Your task to perform on an android device: Open the calendar app, open the side menu, and click the "Day" option Image 0: 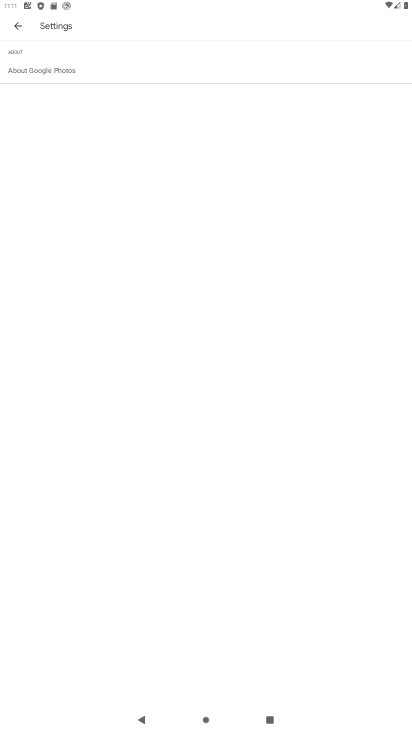
Step 0: press home button
Your task to perform on an android device: Open the calendar app, open the side menu, and click the "Day" option Image 1: 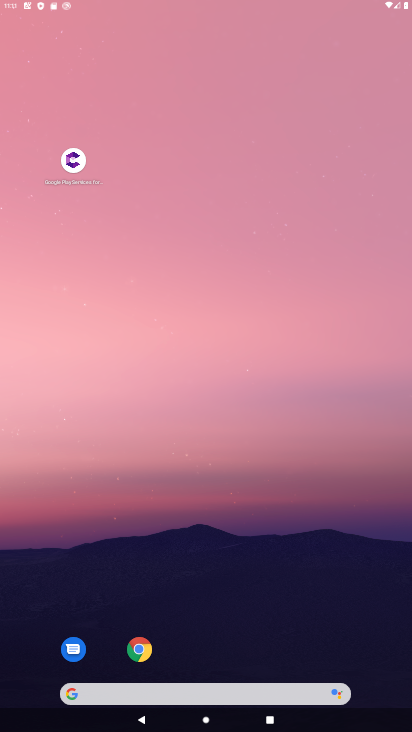
Step 1: drag from (232, 563) to (290, 169)
Your task to perform on an android device: Open the calendar app, open the side menu, and click the "Day" option Image 2: 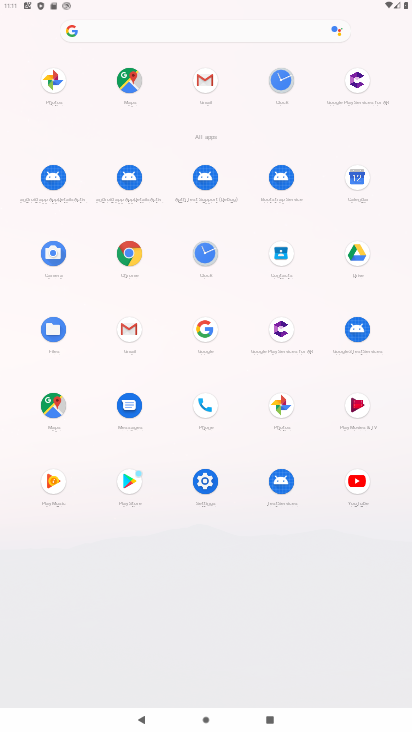
Step 2: click (359, 201)
Your task to perform on an android device: Open the calendar app, open the side menu, and click the "Day" option Image 3: 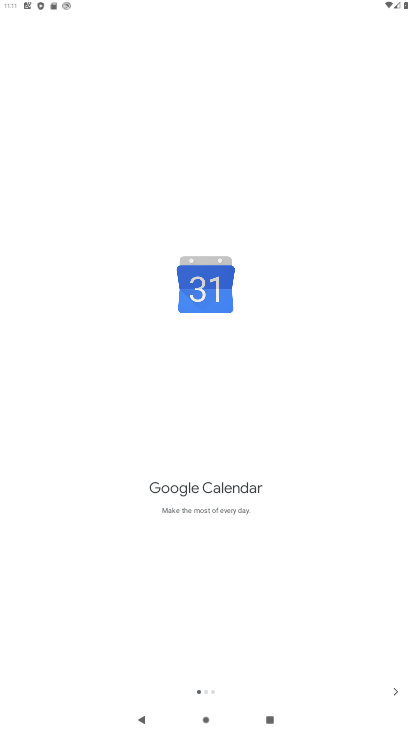
Step 3: click (379, 695)
Your task to perform on an android device: Open the calendar app, open the side menu, and click the "Day" option Image 4: 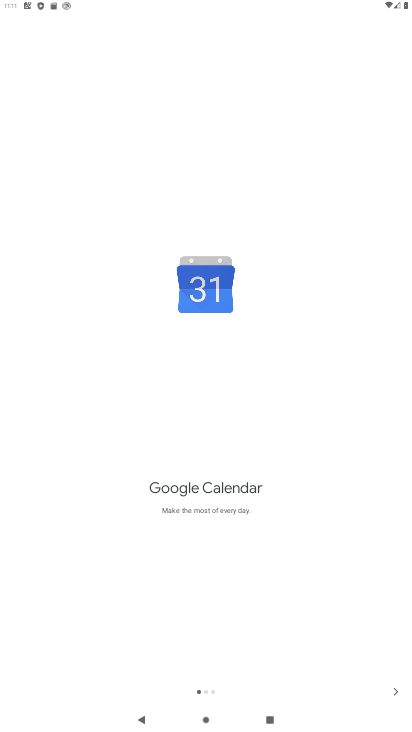
Step 4: click (379, 688)
Your task to perform on an android device: Open the calendar app, open the side menu, and click the "Day" option Image 5: 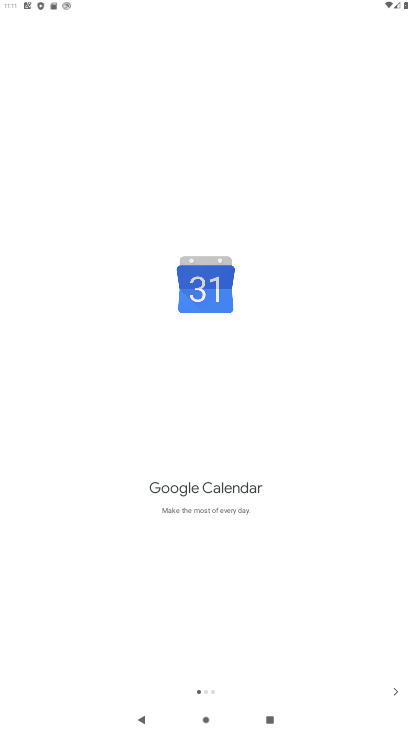
Step 5: click (379, 688)
Your task to perform on an android device: Open the calendar app, open the side menu, and click the "Day" option Image 6: 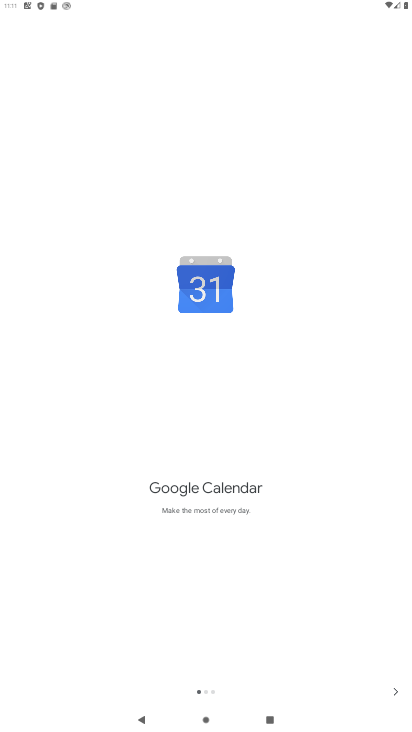
Step 6: click (379, 688)
Your task to perform on an android device: Open the calendar app, open the side menu, and click the "Day" option Image 7: 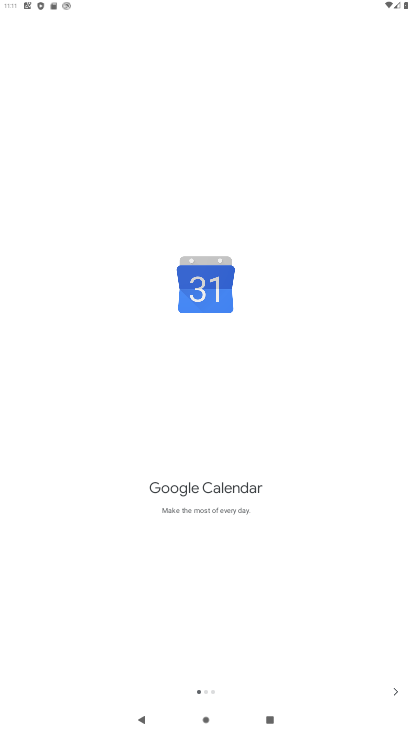
Step 7: click (387, 687)
Your task to perform on an android device: Open the calendar app, open the side menu, and click the "Day" option Image 8: 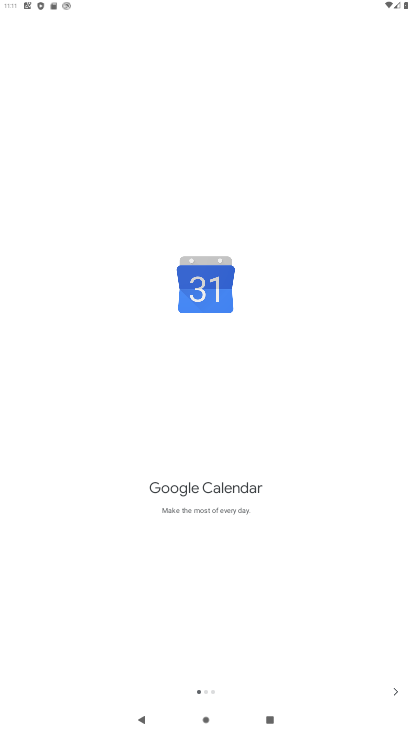
Step 8: click (387, 687)
Your task to perform on an android device: Open the calendar app, open the side menu, and click the "Day" option Image 9: 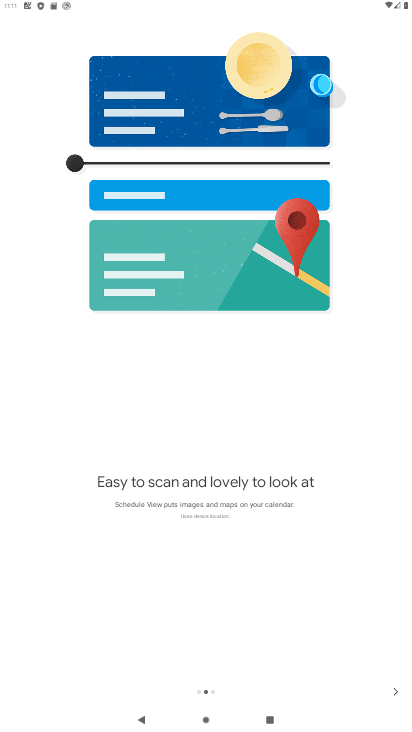
Step 9: click (393, 692)
Your task to perform on an android device: Open the calendar app, open the side menu, and click the "Day" option Image 10: 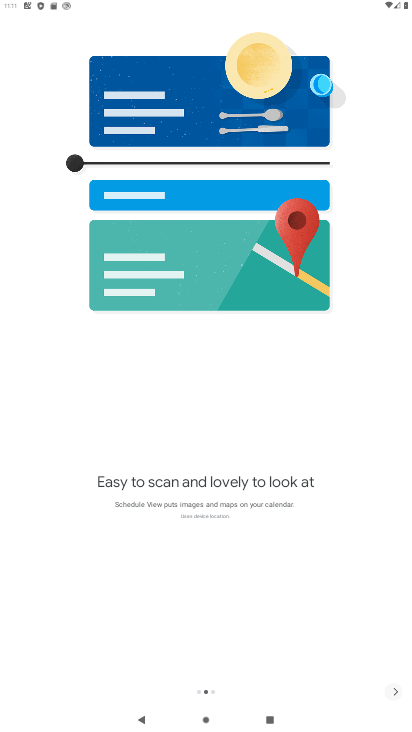
Step 10: click (393, 692)
Your task to perform on an android device: Open the calendar app, open the side menu, and click the "Day" option Image 11: 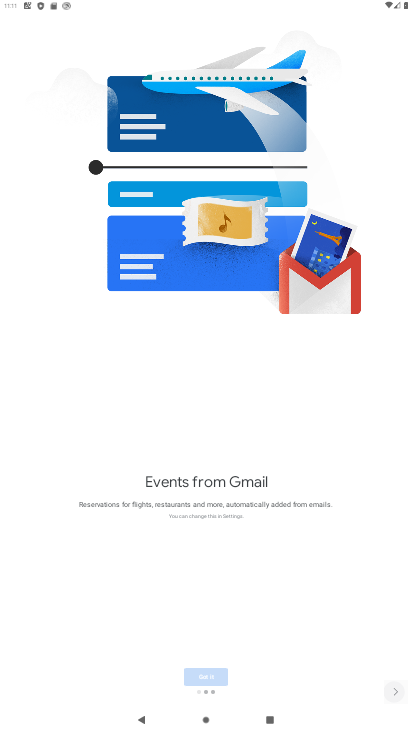
Step 11: click (393, 692)
Your task to perform on an android device: Open the calendar app, open the side menu, and click the "Day" option Image 12: 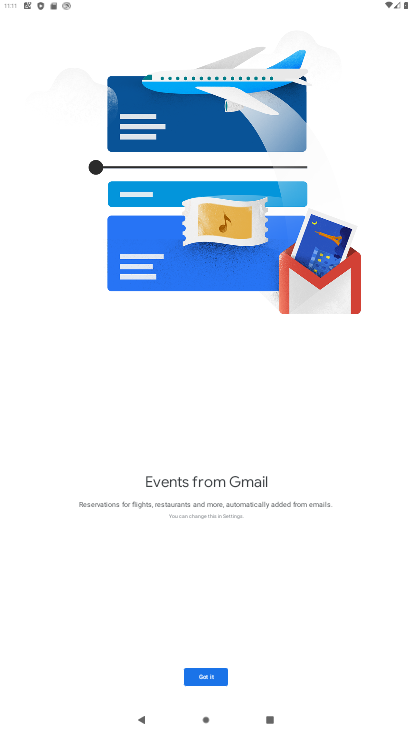
Step 12: click (393, 692)
Your task to perform on an android device: Open the calendar app, open the side menu, and click the "Day" option Image 13: 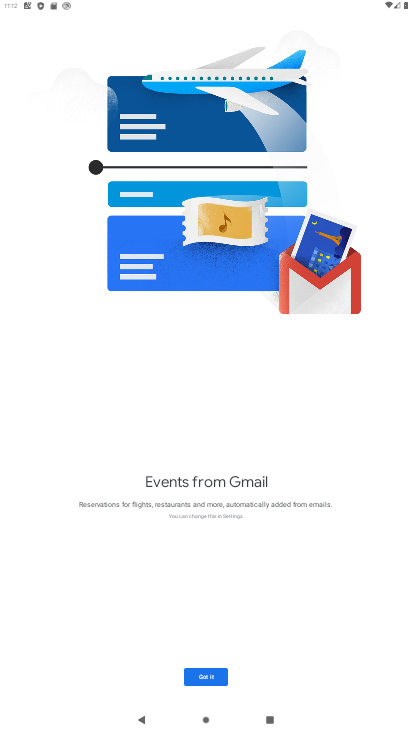
Step 13: click (204, 679)
Your task to perform on an android device: Open the calendar app, open the side menu, and click the "Day" option Image 14: 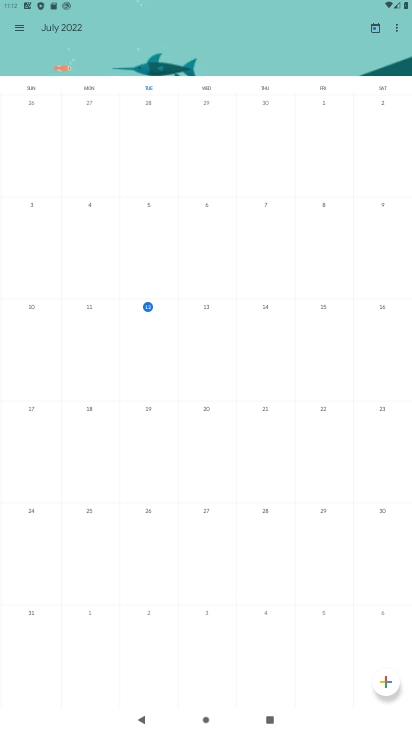
Step 14: click (19, 19)
Your task to perform on an android device: Open the calendar app, open the side menu, and click the "Day" option Image 15: 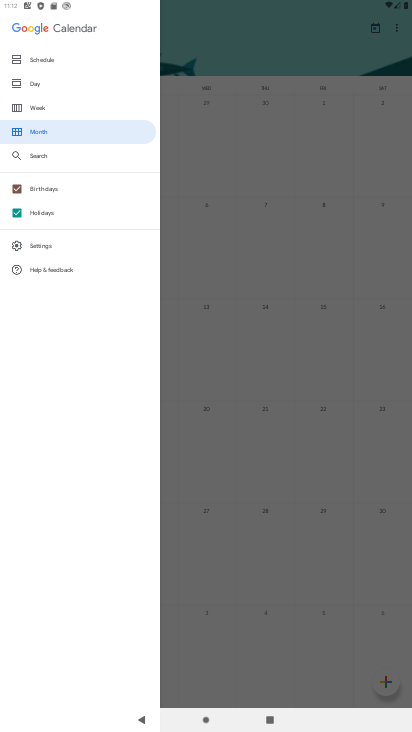
Step 15: click (46, 88)
Your task to perform on an android device: Open the calendar app, open the side menu, and click the "Day" option Image 16: 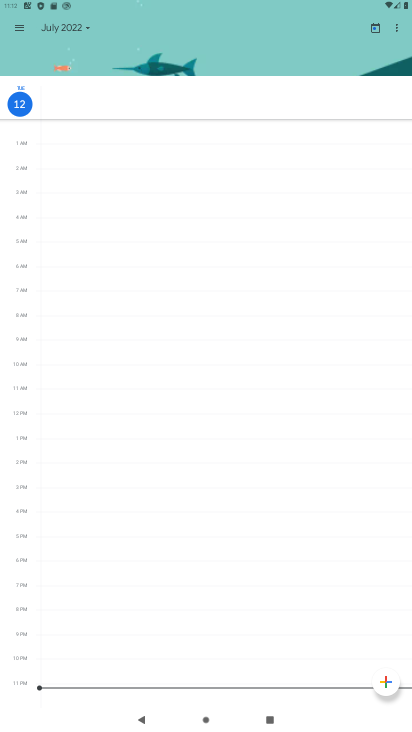
Step 16: task complete